Your task to perform on an android device: all mails in gmail Image 0: 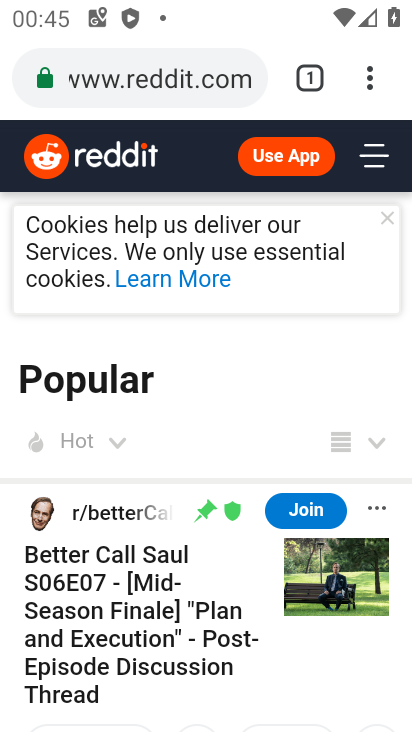
Step 0: press home button
Your task to perform on an android device: all mails in gmail Image 1: 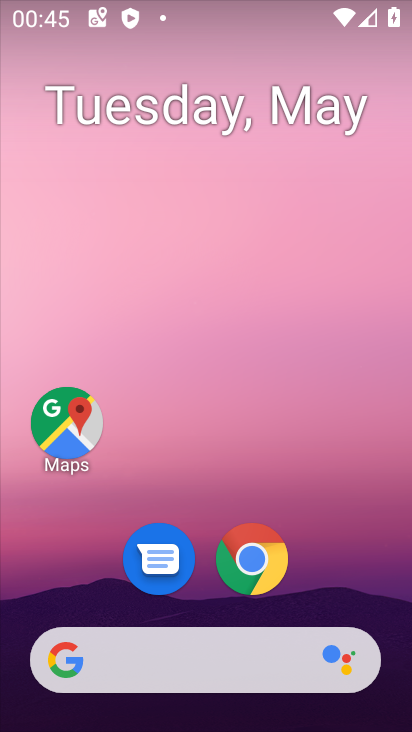
Step 1: drag from (328, 549) to (284, 254)
Your task to perform on an android device: all mails in gmail Image 2: 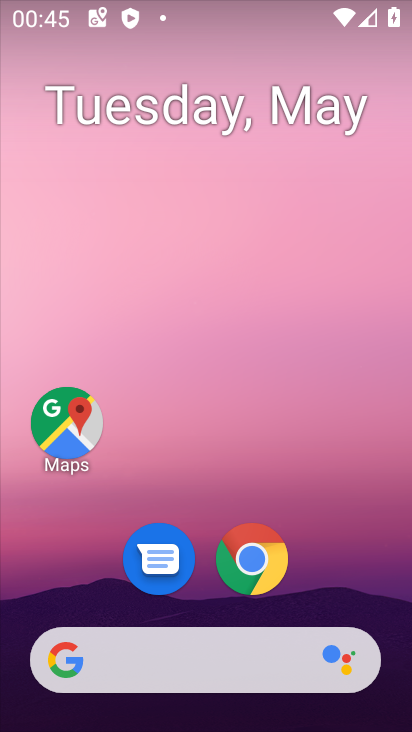
Step 2: drag from (326, 505) to (240, 32)
Your task to perform on an android device: all mails in gmail Image 3: 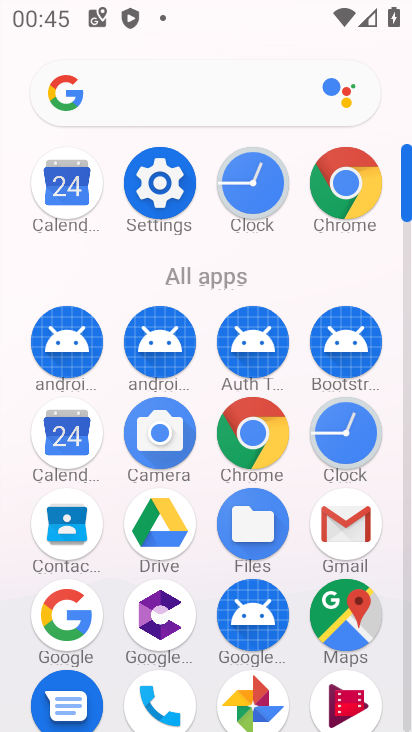
Step 3: click (352, 520)
Your task to perform on an android device: all mails in gmail Image 4: 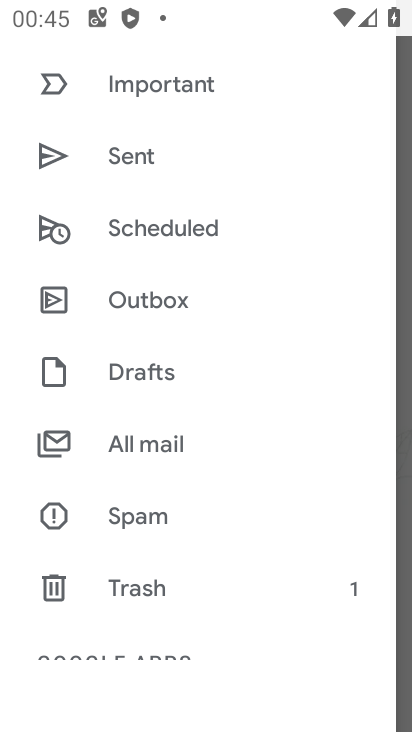
Step 4: drag from (176, 467) to (176, 239)
Your task to perform on an android device: all mails in gmail Image 5: 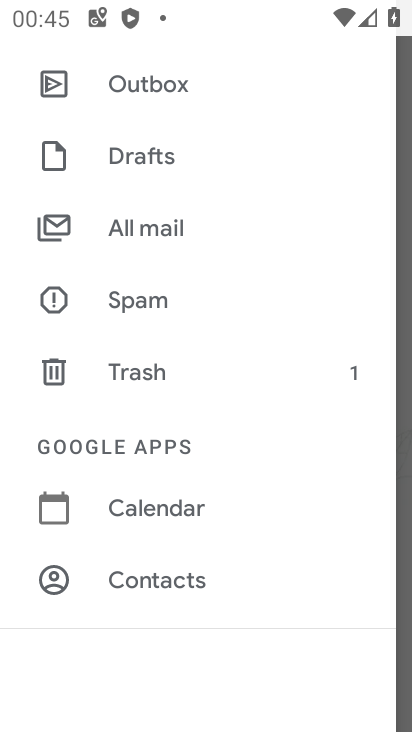
Step 5: click (146, 236)
Your task to perform on an android device: all mails in gmail Image 6: 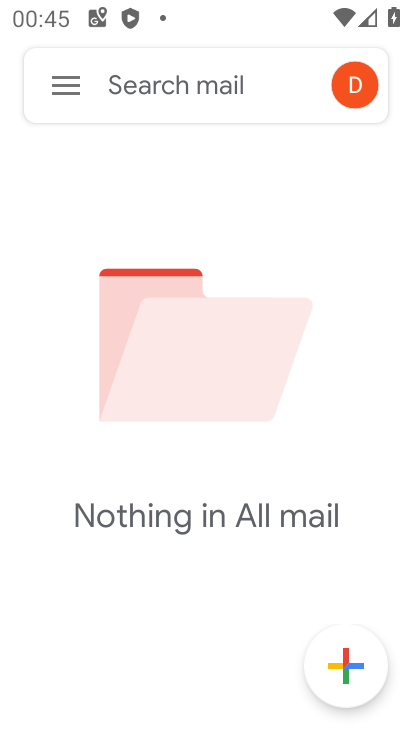
Step 6: task complete